Your task to perform on an android device: Open the calendar app, open the side menu, and click the "Day" option Image 0: 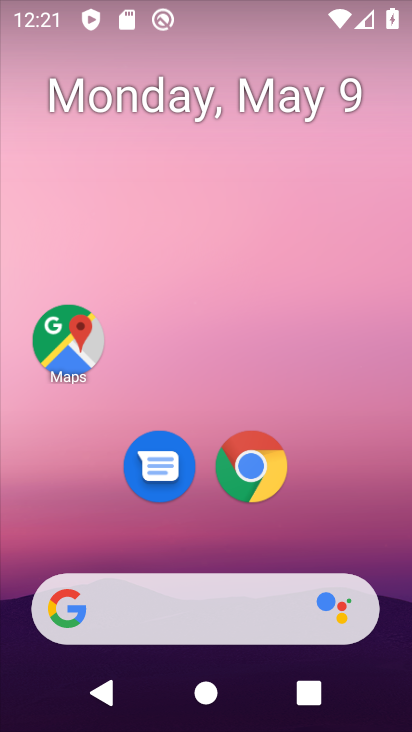
Step 0: drag from (344, 552) to (275, 51)
Your task to perform on an android device: Open the calendar app, open the side menu, and click the "Day" option Image 1: 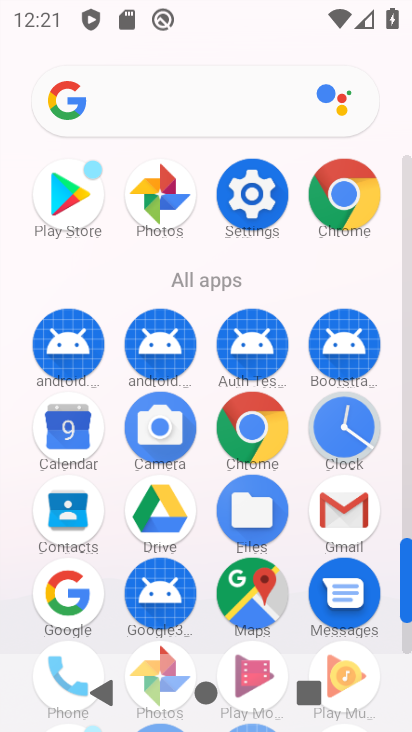
Step 1: click (73, 434)
Your task to perform on an android device: Open the calendar app, open the side menu, and click the "Day" option Image 2: 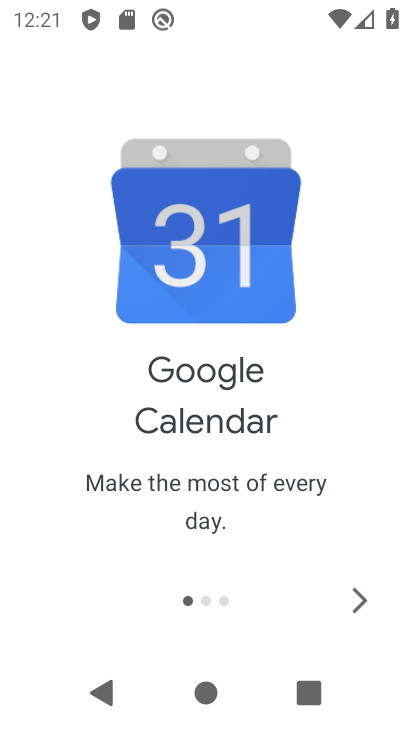
Step 2: click (362, 605)
Your task to perform on an android device: Open the calendar app, open the side menu, and click the "Day" option Image 3: 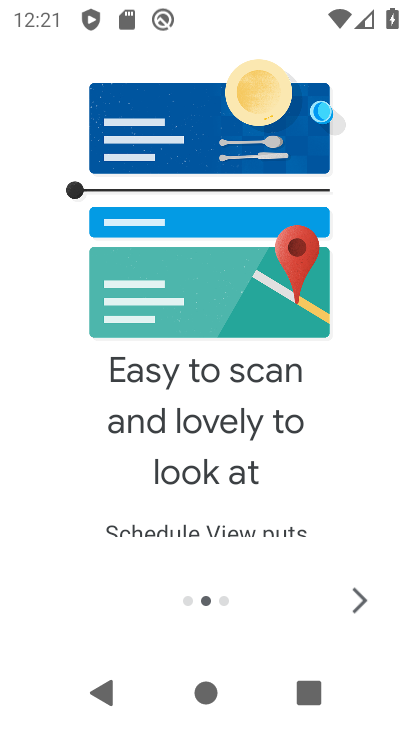
Step 3: click (362, 605)
Your task to perform on an android device: Open the calendar app, open the side menu, and click the "Day" option Image 4: 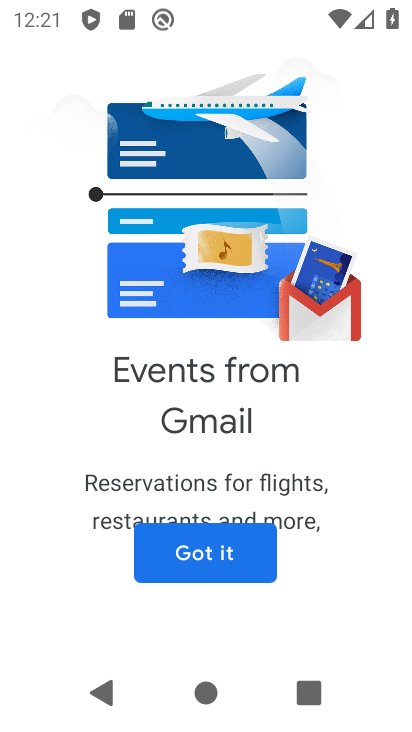
Step 4: click (219, 578)
Your task to perform on an android device: Open the calendar app, open the side menu, and click the "Day" option Image 5: 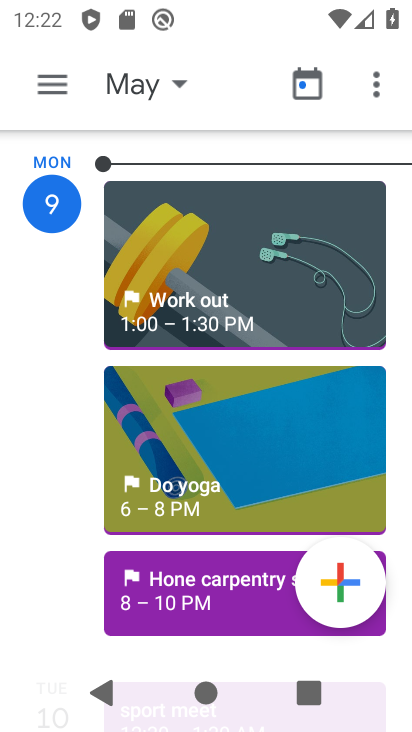
Step 5: click (43, 99)
Your task to perform on an android device: Open the calendar app, open the side menu, and click the "Day" option Image 6: 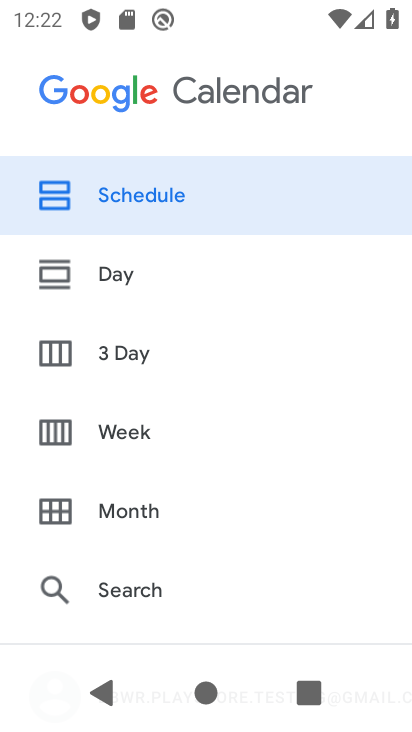
Step 6: click (129, 272)
Your task to perform on an android device: Open the calendar app, open the side menu, and click the "Day" option Image 7: 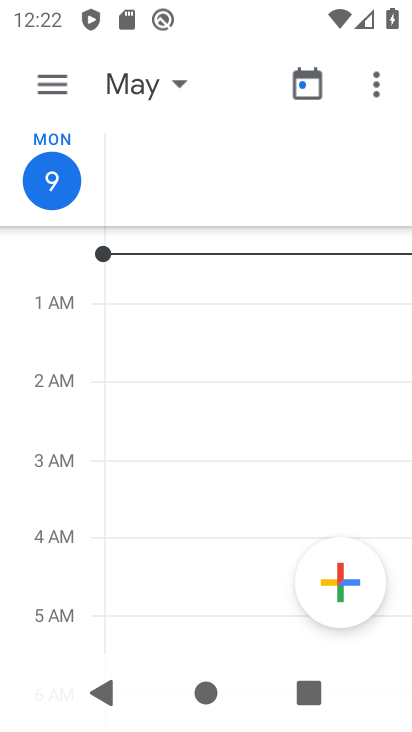
Step 7: task complete